Your task to perform on an android device: What is the capital of Spain? Image 0: 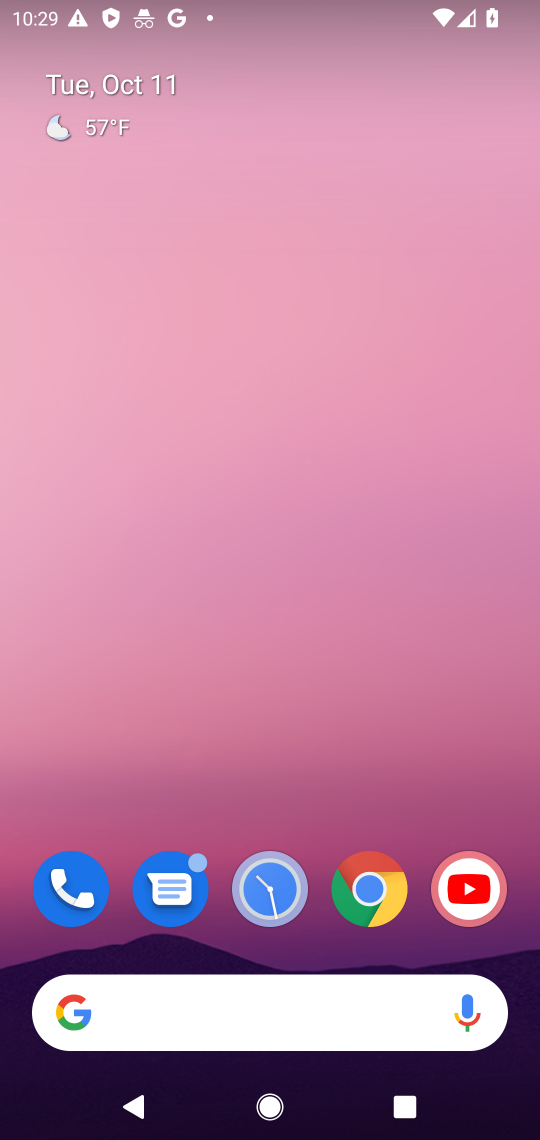
Step 0: click (159, 1009)
Your task to perform on an android device: What is the capital of Spain? Image 1: 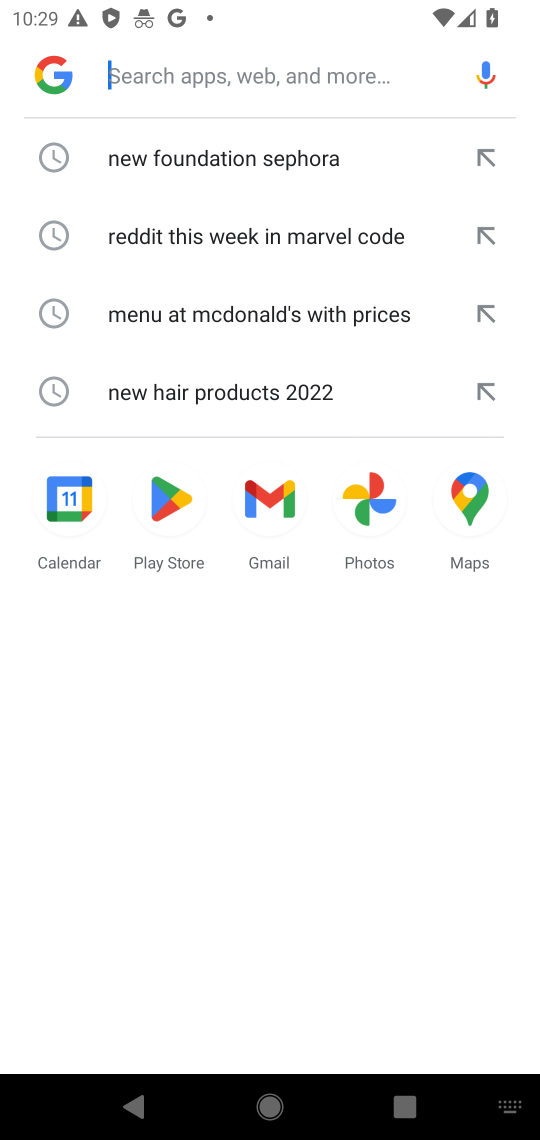
Step 1: click (168, 76)
Your task to perform on an android device: What is the capital of Spain? Image 2: 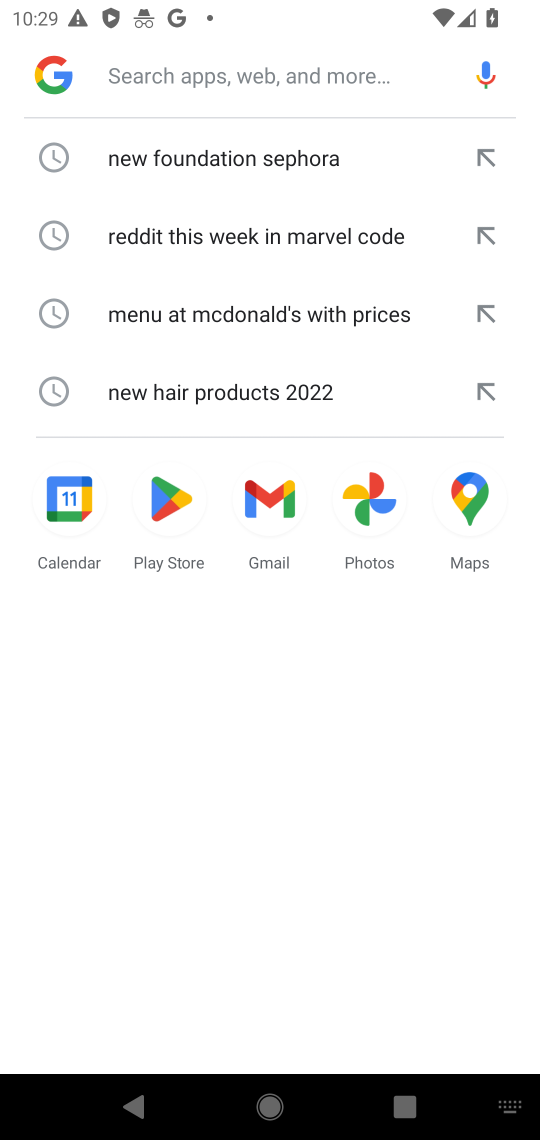
Step 2: type " capital of Spain?"
Your task to perform on an android device: What is the capital of Spain? Image 3: 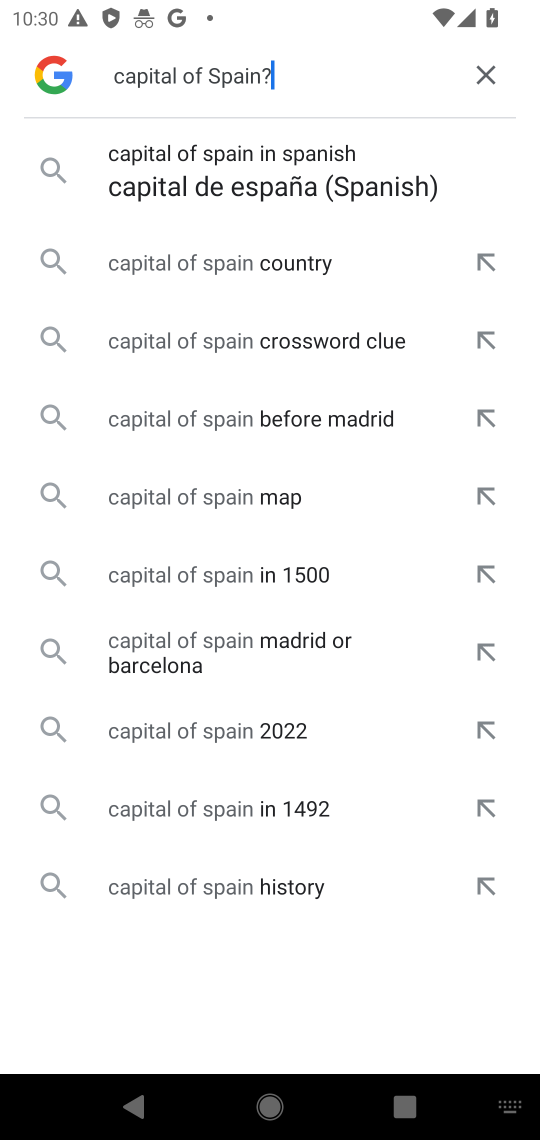
Step 3: click (108, 262)
Your task to perform on an android device: What is the capital of Spain? Image 4: 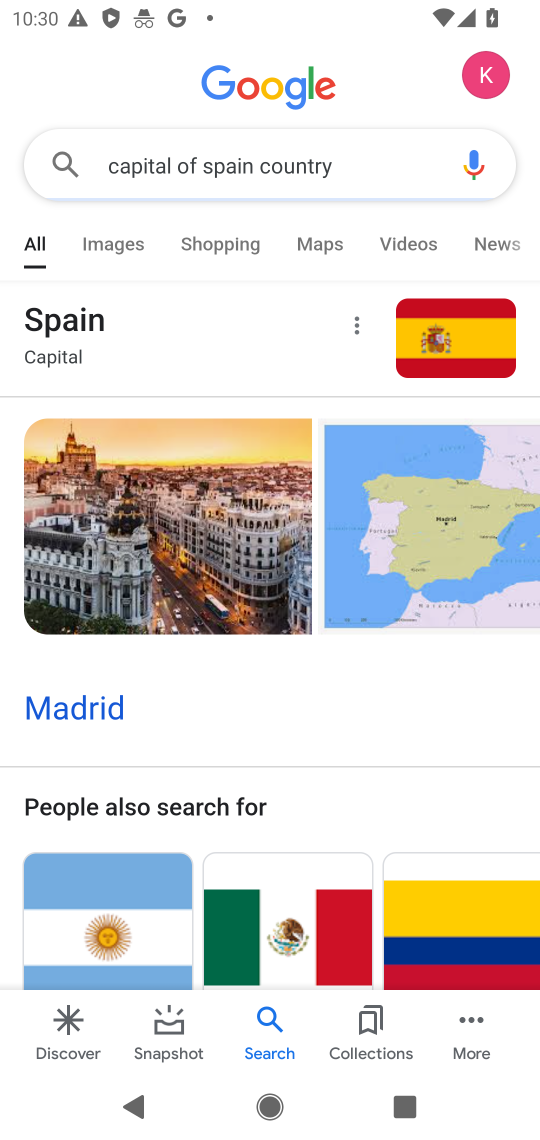
Step 4: task complete